Your task to perform on an android device: View the shopping cart on bestbuy. Search for "logitech g903" on bestbuy, select the first entry, add it to the cart, then select checkout. Image 0: 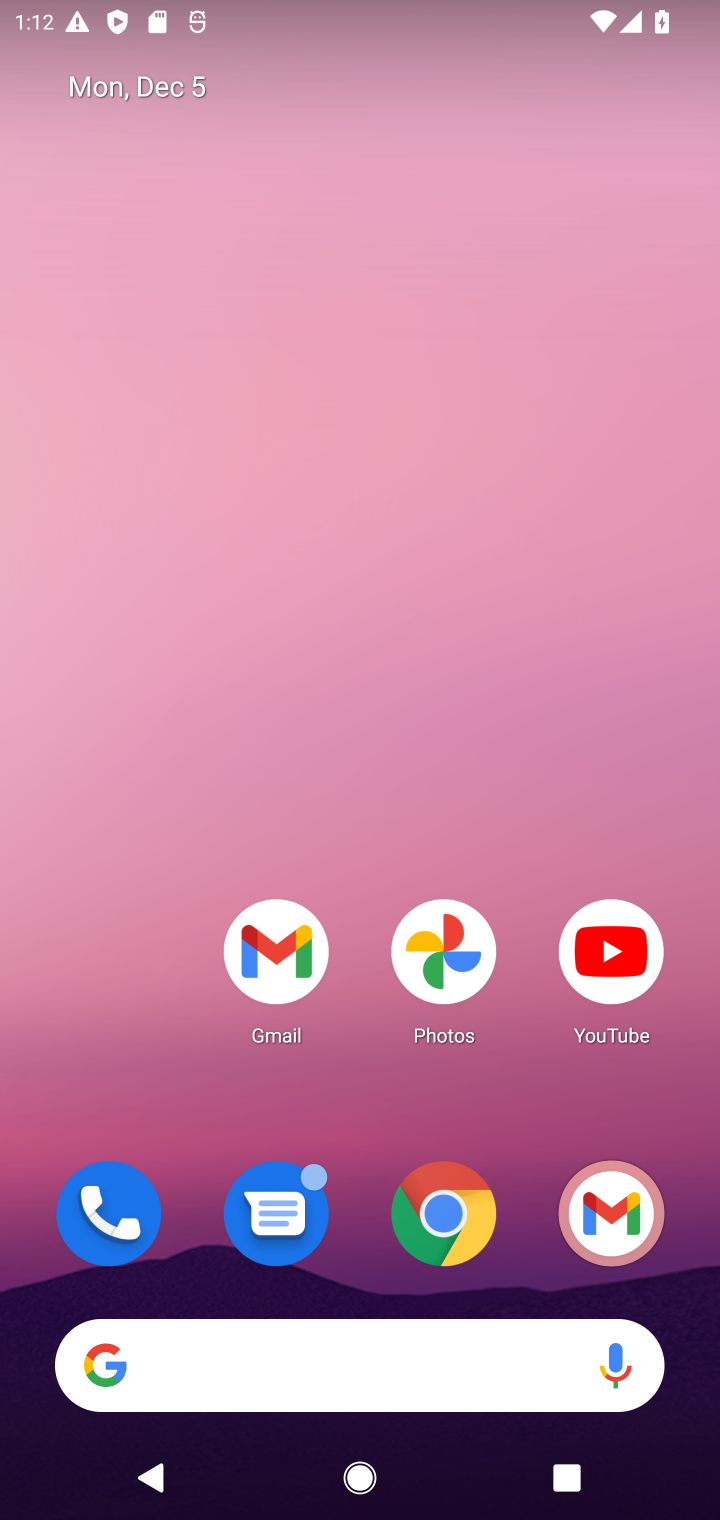
Step 0: click (461, 1221)
Your task to perform on an android device: View the shopping cart on bestbuy. Search for "logitech g903" on bestbuy, select the first entry, add it to the cart, then select checkout. Image 1: 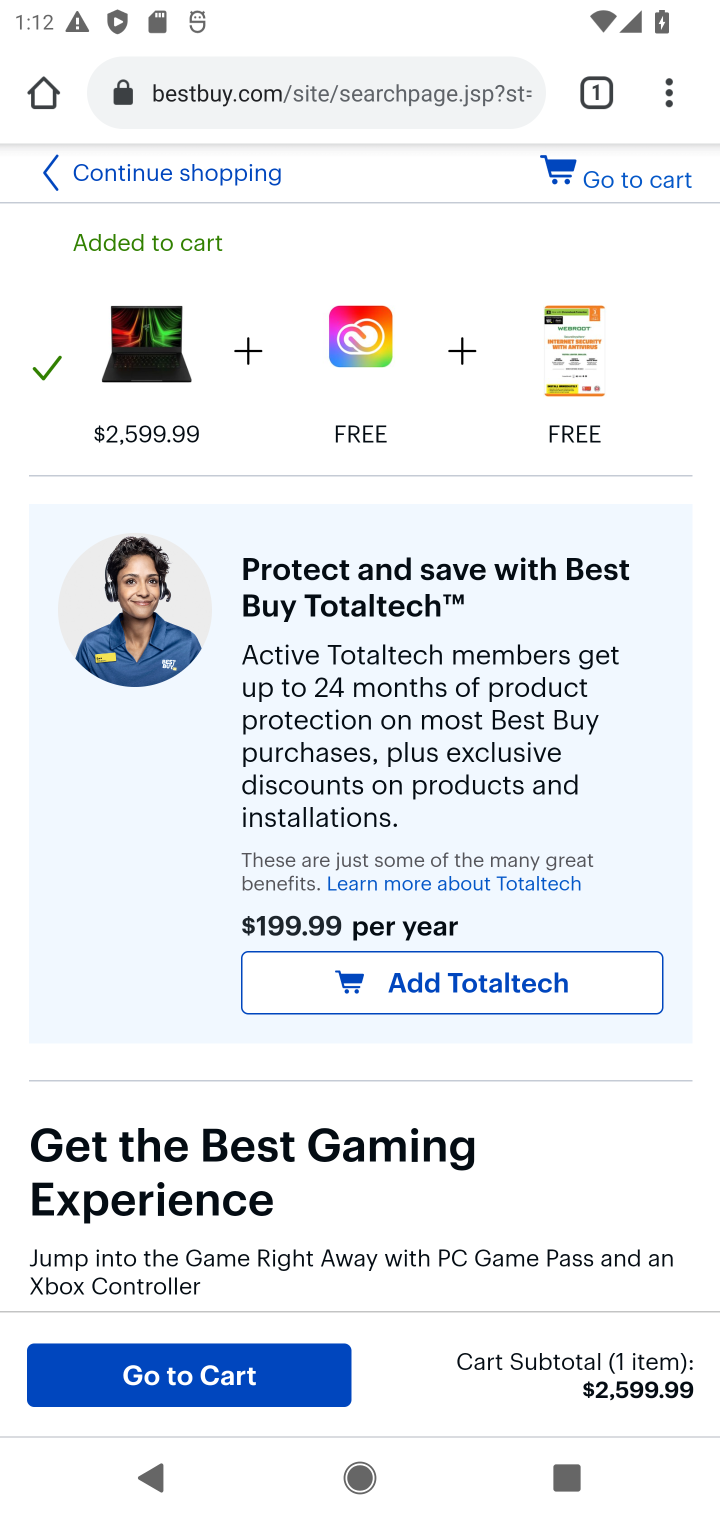
Step 1: click (630, 180)
Your task to perform on an android device: View the shopping cart on bestbuy. Search for "logitech g903" on bestbuy, select the first entry, add it to the cart, then select checkout. Image 2: 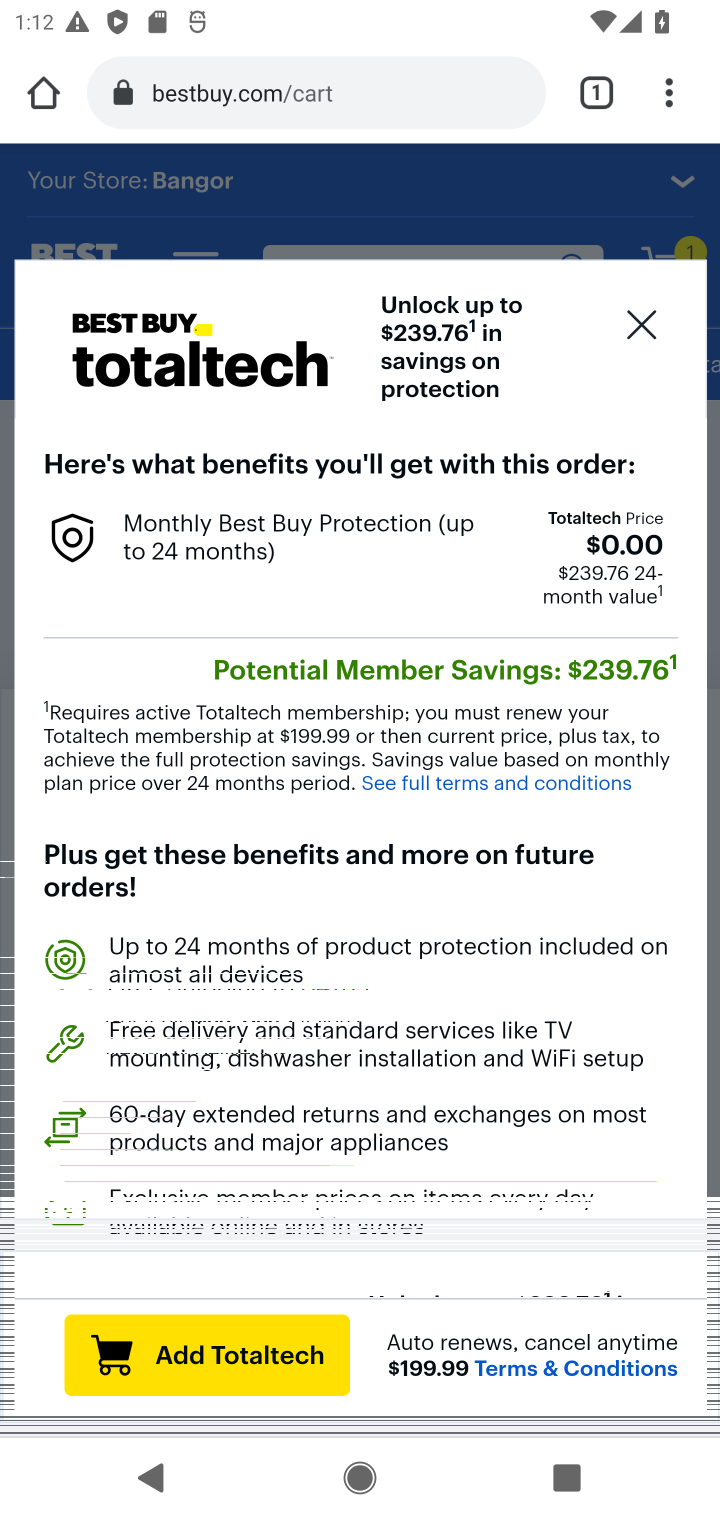
Step 2: click (642, 328)
Your task to perform on an android device: View the shopping cart on bestbuy. Search for "logitech g903" on bestbuy, select the first entry, add it to the cart, then select checkout. Image 3: 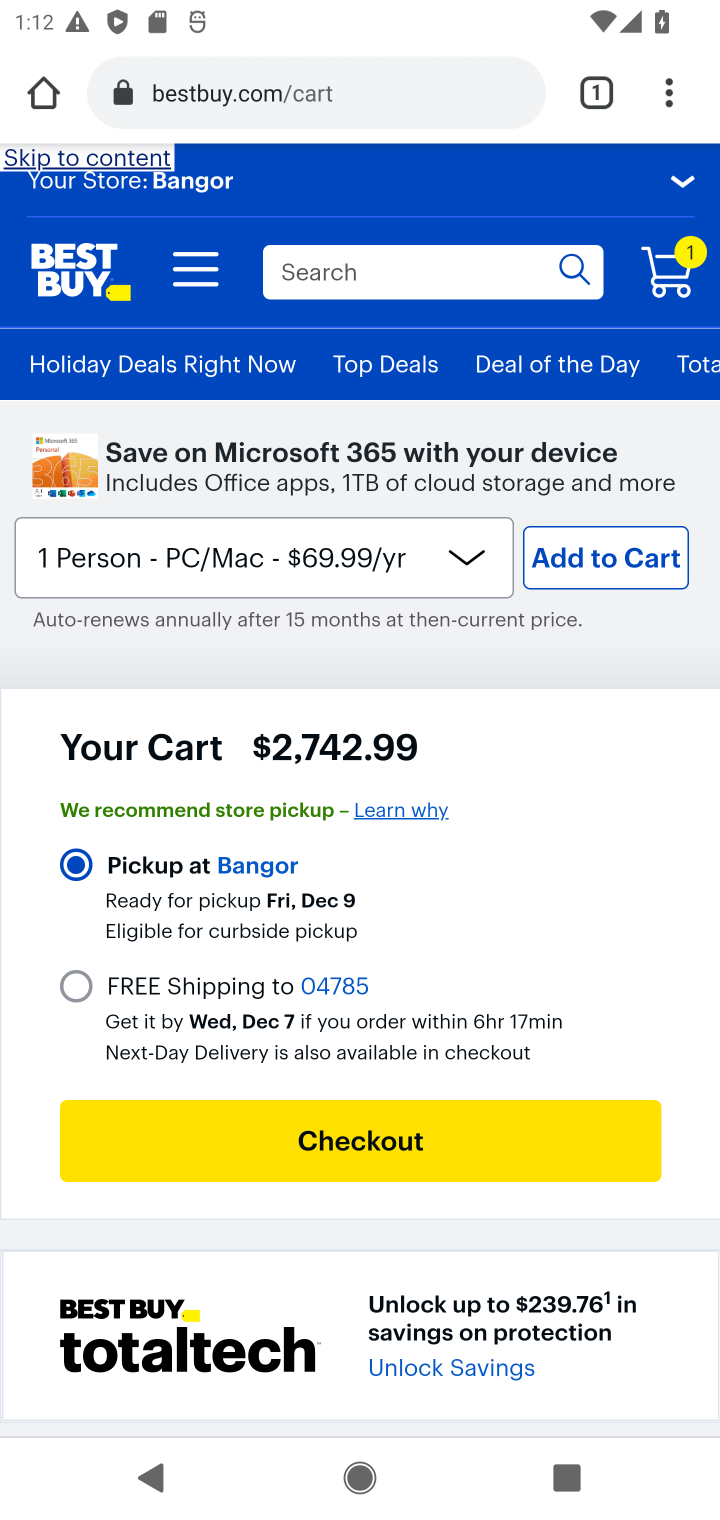
Step 3: drag from (576, 856) to (574, 334)
Your task to perform on an android device: View the shopping cart on bestbuy. Search for "logitech g903" on bestbuy, select the first entry, add it to the cart, then select checkout. Image 4: 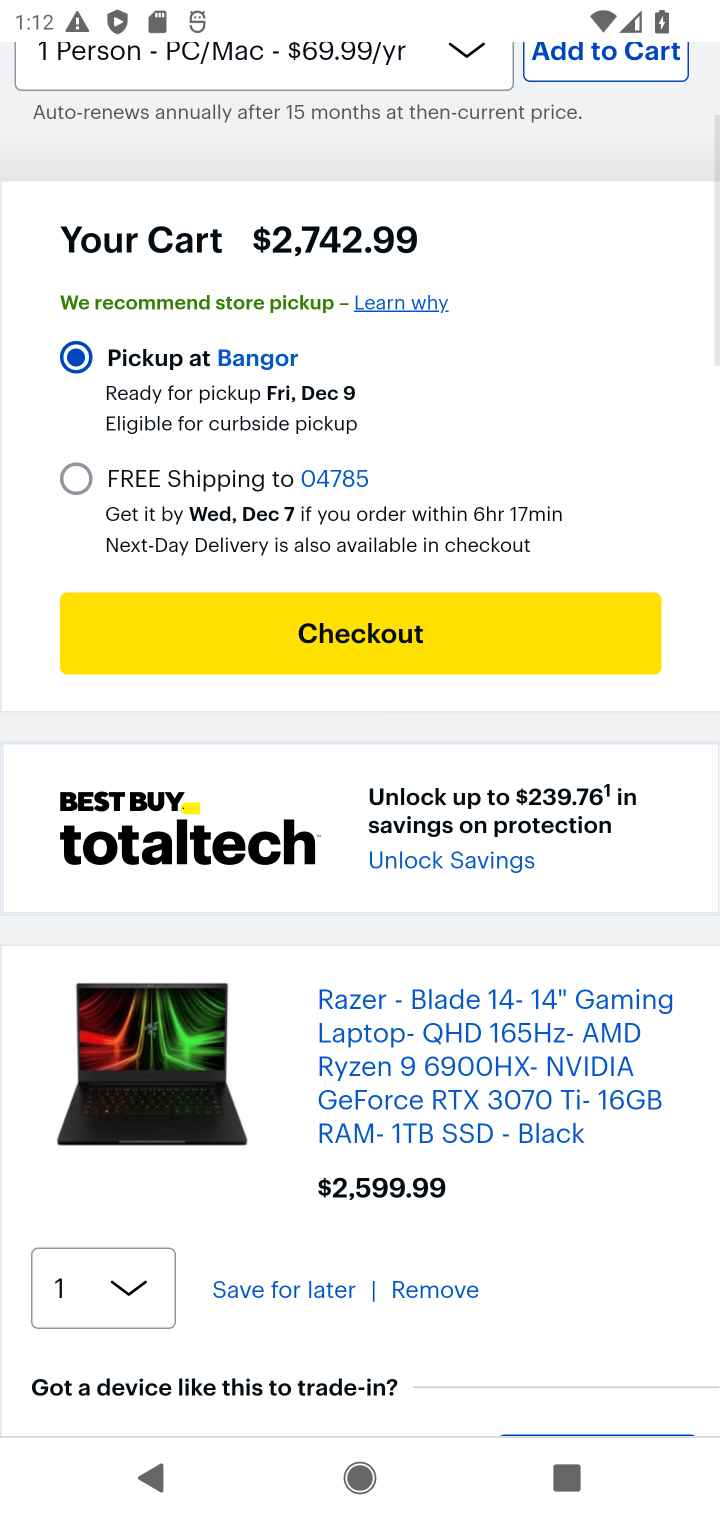
Step 4: drag from (515, 386) to (526, 749)
Your task to perform on an android device: View the shopping cart on bestbuy. Search for "logitech g903" on bestbuy, select the first entry, add it to the cart, then select checkout. Image 5: 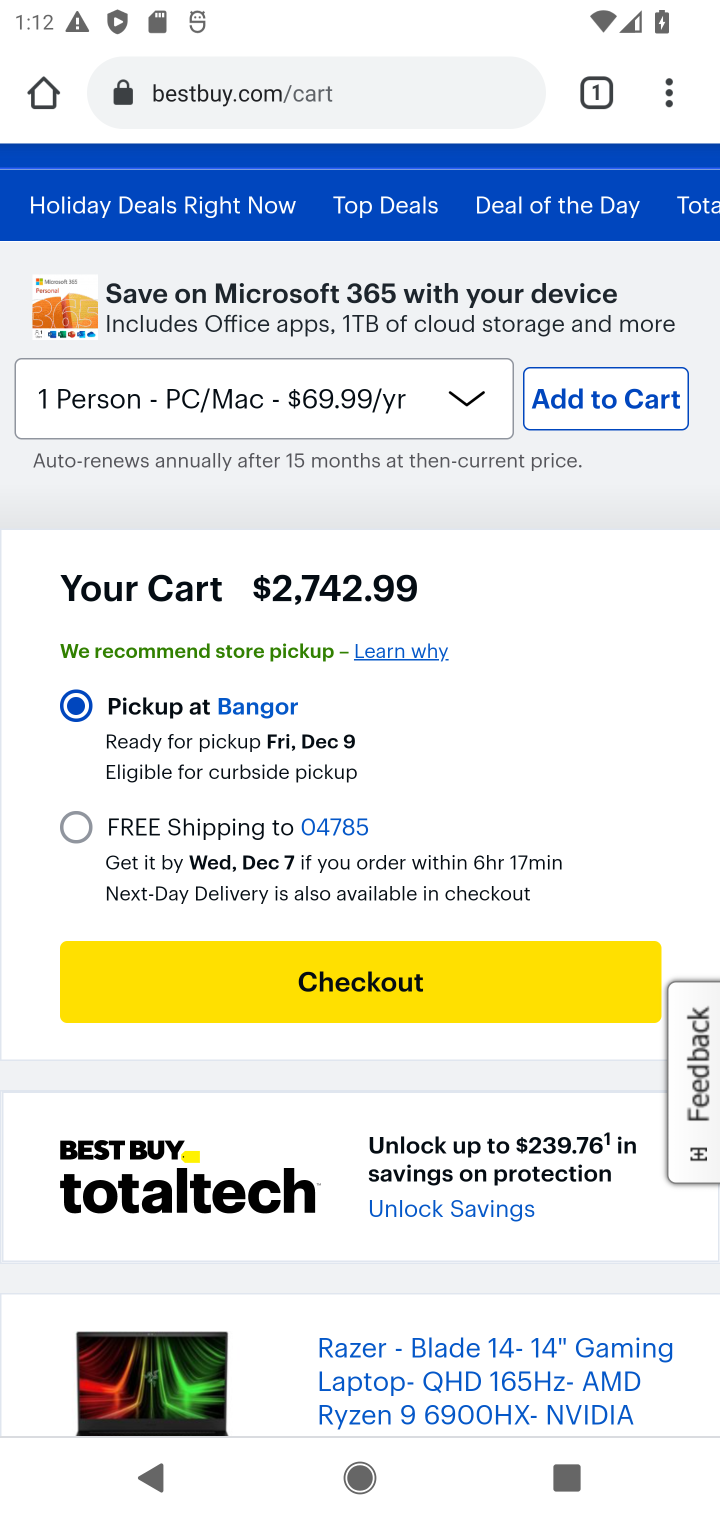
Step 5: drag from (375, 205) to (370, 597)
Your task to perform on an android device: View the shopping cart on bestbuy. Search for "logitech g903" on bestbuy, select the first entry, add it to the cart, then select checkout. Image 6: 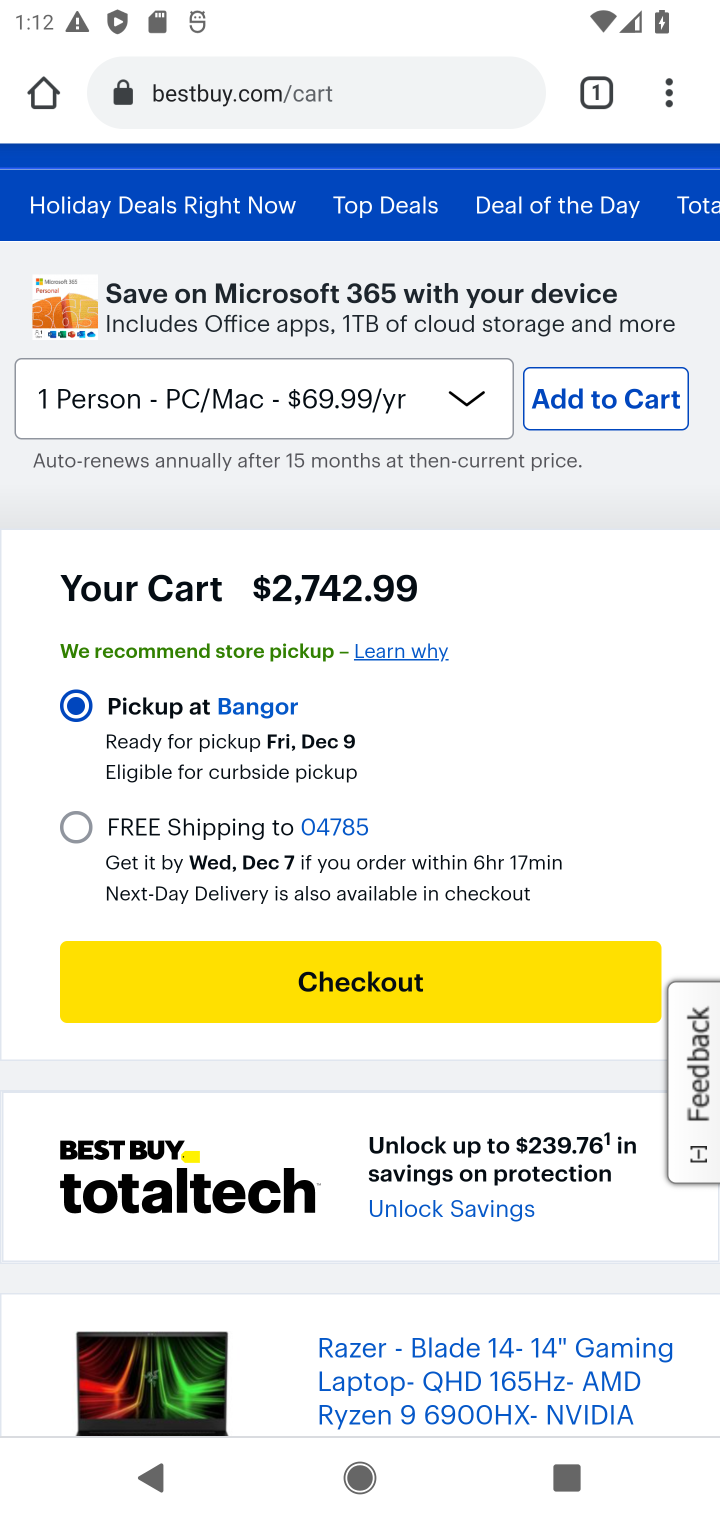
Step 6: drag from (307, 214) to (333, 475)
Your task to perform on an android device: View the shopping cart on bestbuy. Search for "logitech g903" on bestbuy, select the first entry, add it to the cart, then select checkout. Image 7: 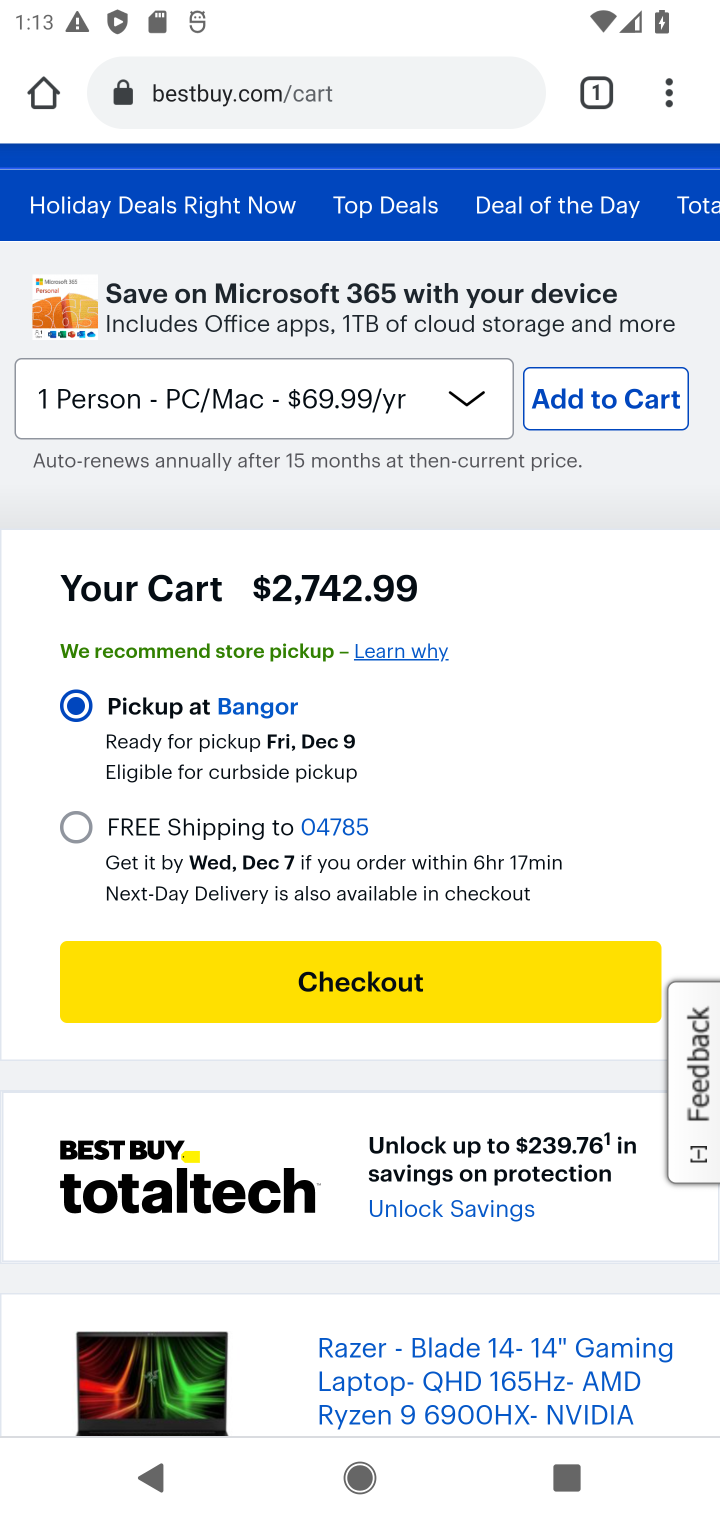
Step 7: drag from (632, 498) to (632, 731)
Your task to perform on an android device: View the shopping cart on bestbuy. Search for "logitech g903" on bestbuy, select the first entry, add it to the cart, then select checkout. Image 8: 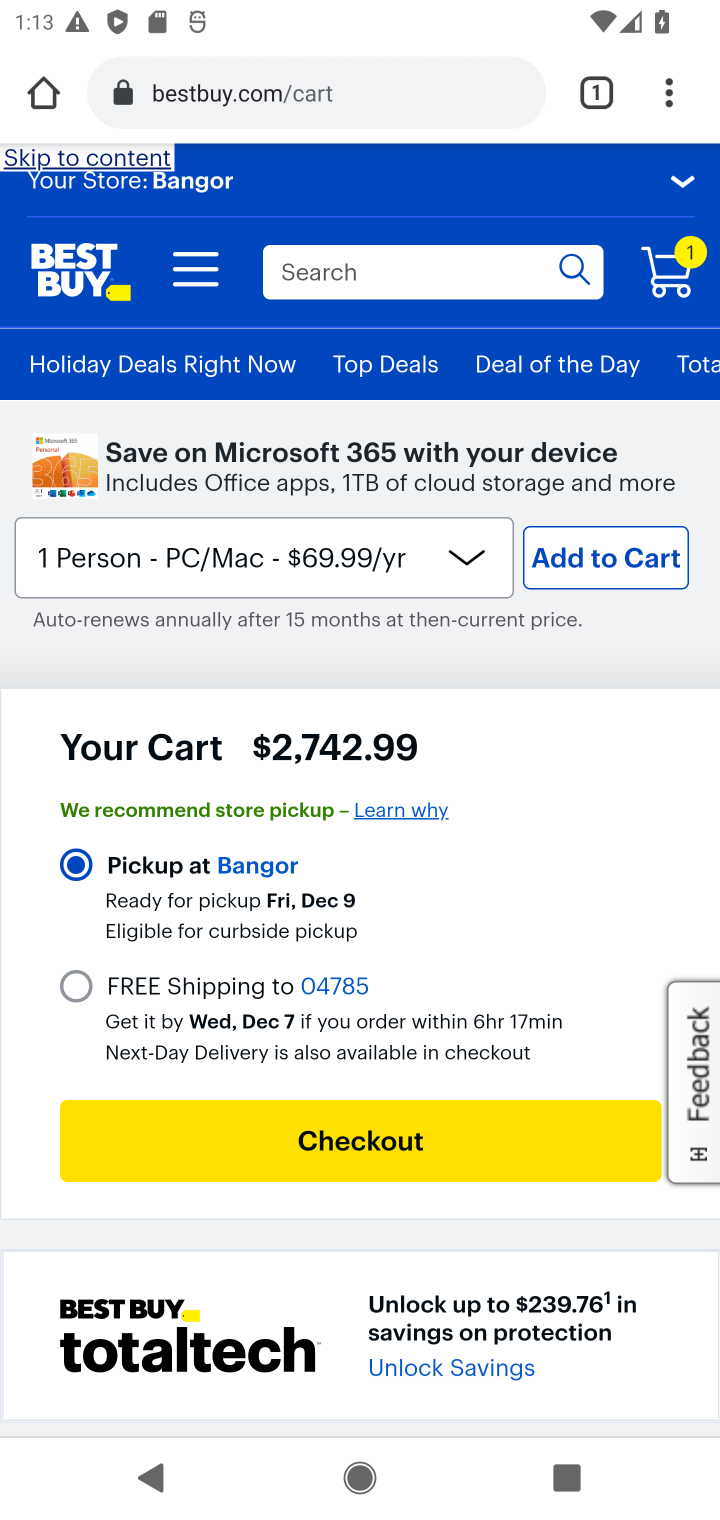
Step 8: click (309, 255)
Your task to perform on an android device: View the shopping cart on bestbuy. Search for "logitech g903" on bestbuy, select the first entry, add it to the cart, then select checkout. Image 9: 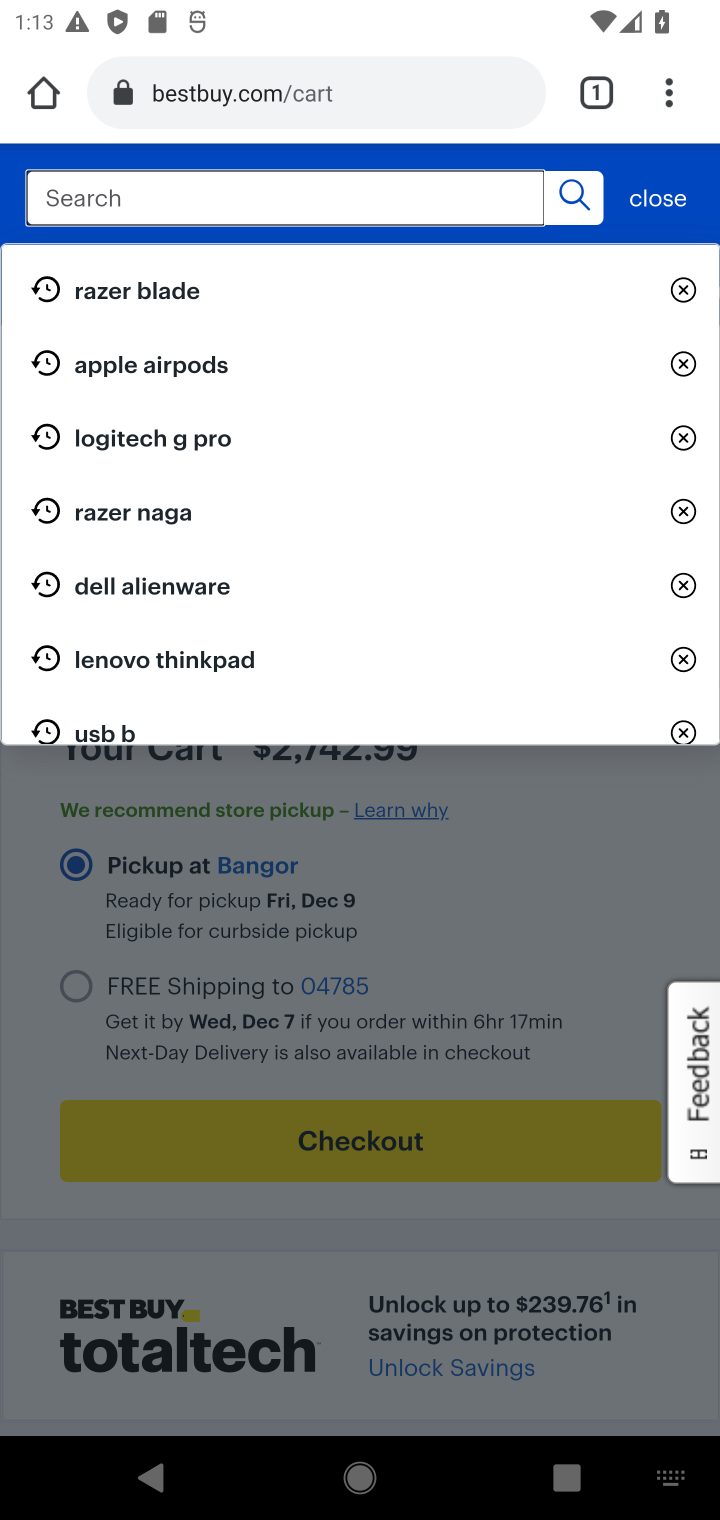
Step 9: type "logitech g903"
Your task to perform on an android device: View the shopping cart on bestbuy. Search for "logitech g903" on bestbuy, select the first entry, add it to the cart, then select checkout. Image 10: 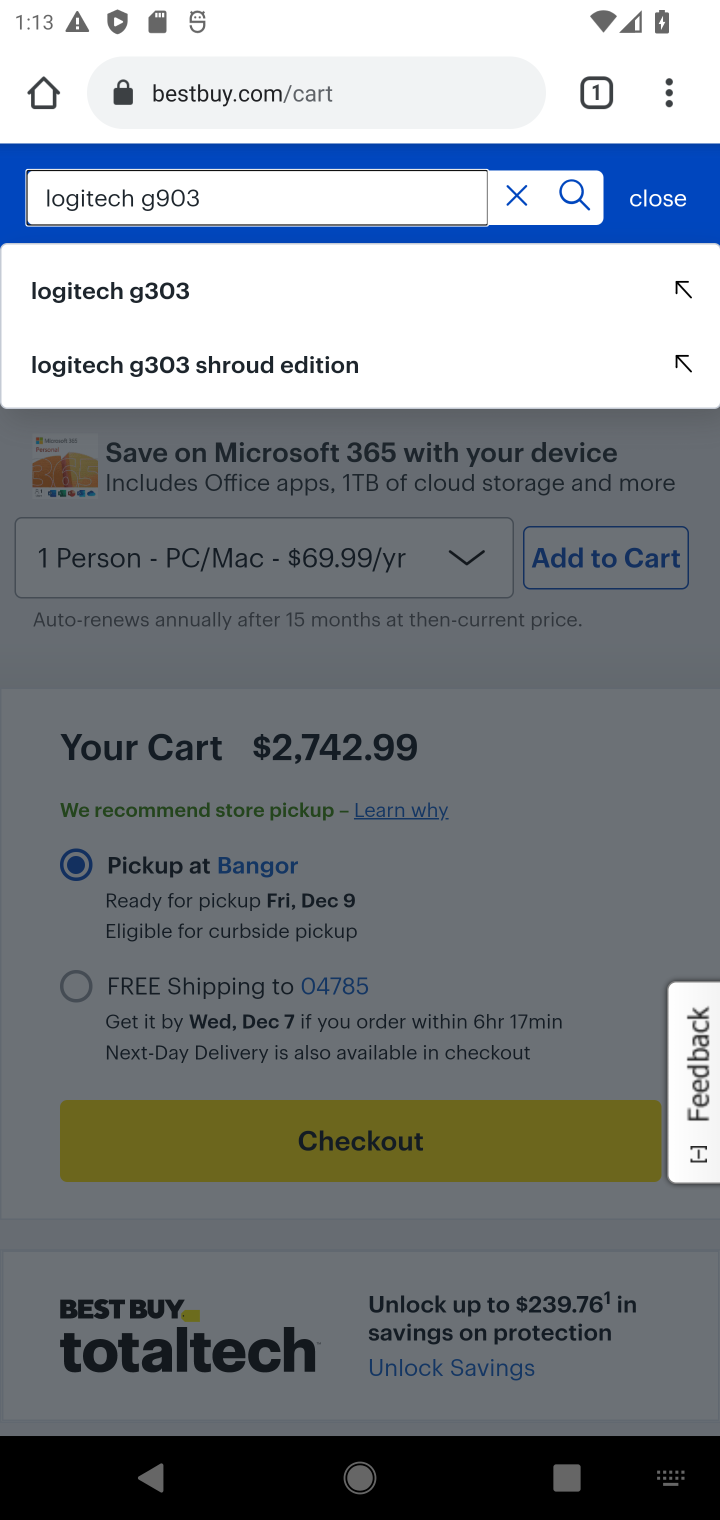
Step 10: click (596, 208)
Your task to perform on an android device: View the shopping cart on bestbuy. Search for "logitech g903" on bestbuy, select the first entry, add it to the cart, then select checkout. Image 11: 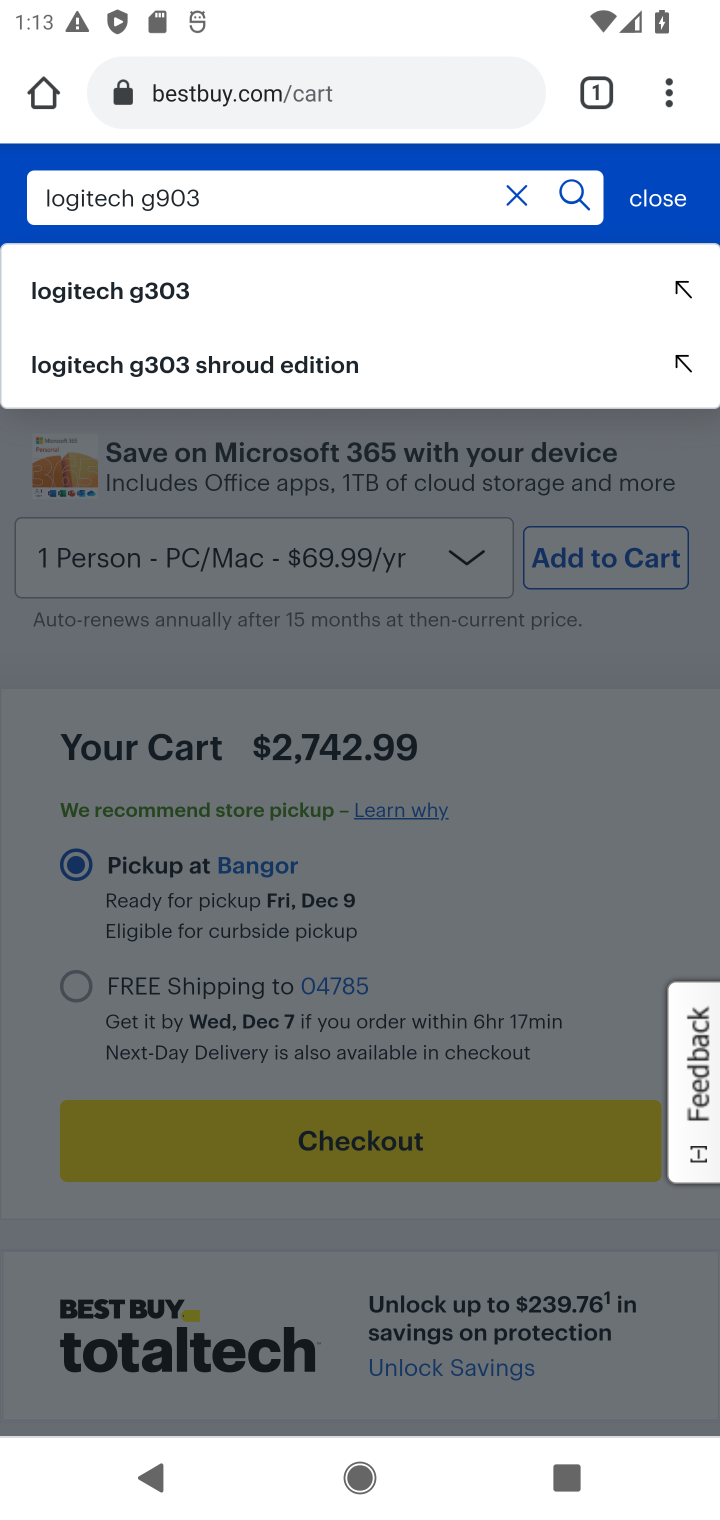
Step 11: click (568, 199)
Your task to perform on an android device: View the shopping cart on bestbuy. Search for "logitech g903" on bestbuy, select the first entry, add it to the cart, then select checkout. Image 12: 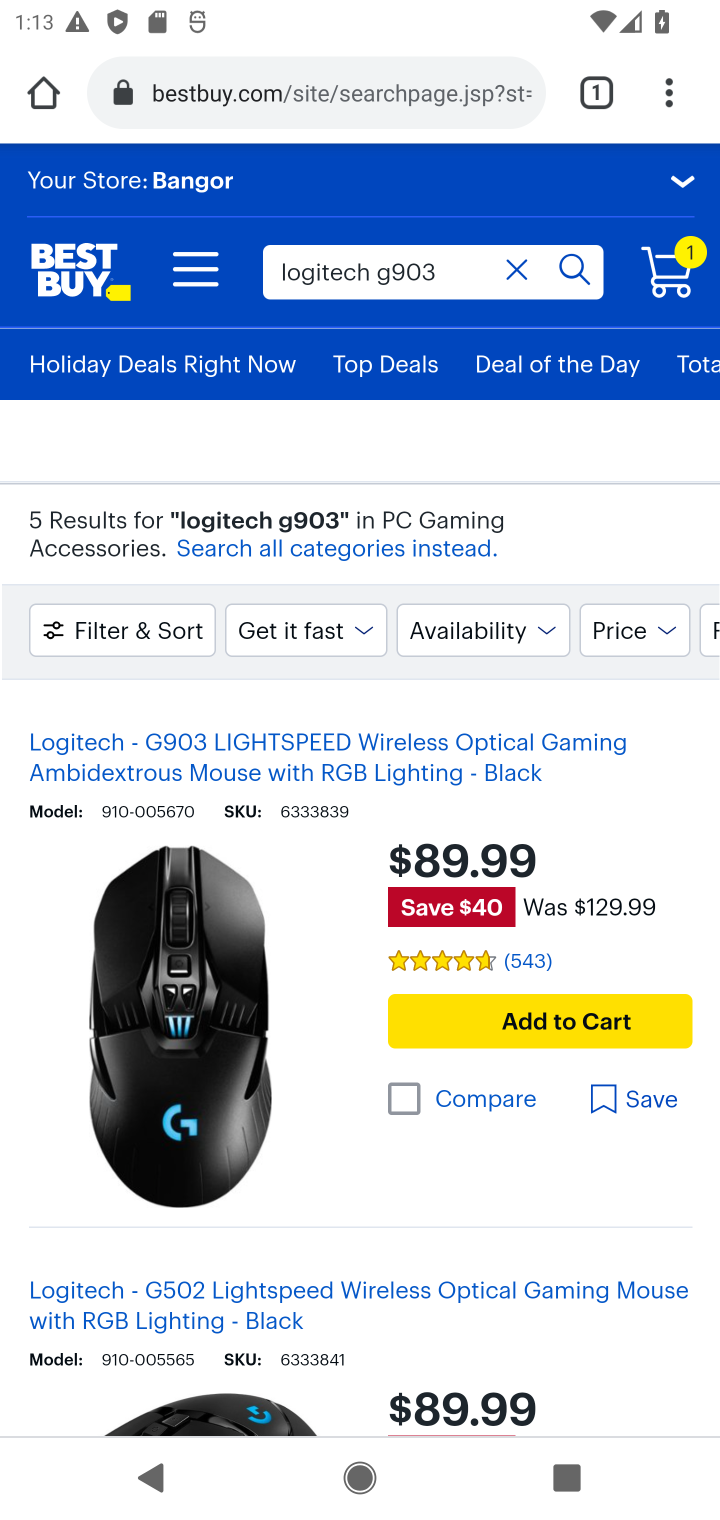
Step 12: drag from (328, 934) to (363, 542)
Your task to perform on an android device: View the shopping cart on bestbuy. Search for "logitech g903" on bestbuy, select the first entry, add it to the cart, then select checkout. Image 13: 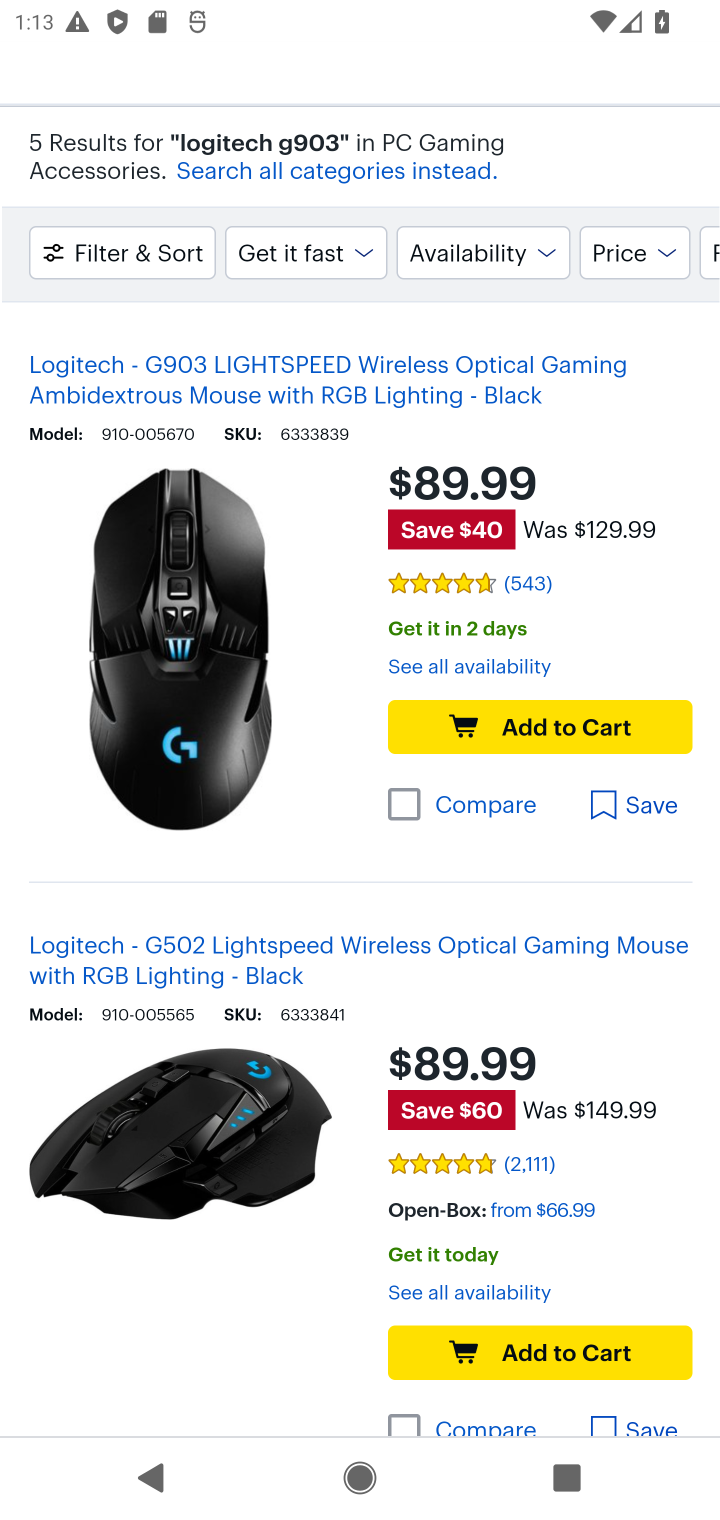
Step 13: click (521, 731)
Your task to perform on an android device: View the shopping cart on bestbuy. Search for "logitech g903" on bestbuy, select the first entry, add it to the cart, then select checkout. Image 14: 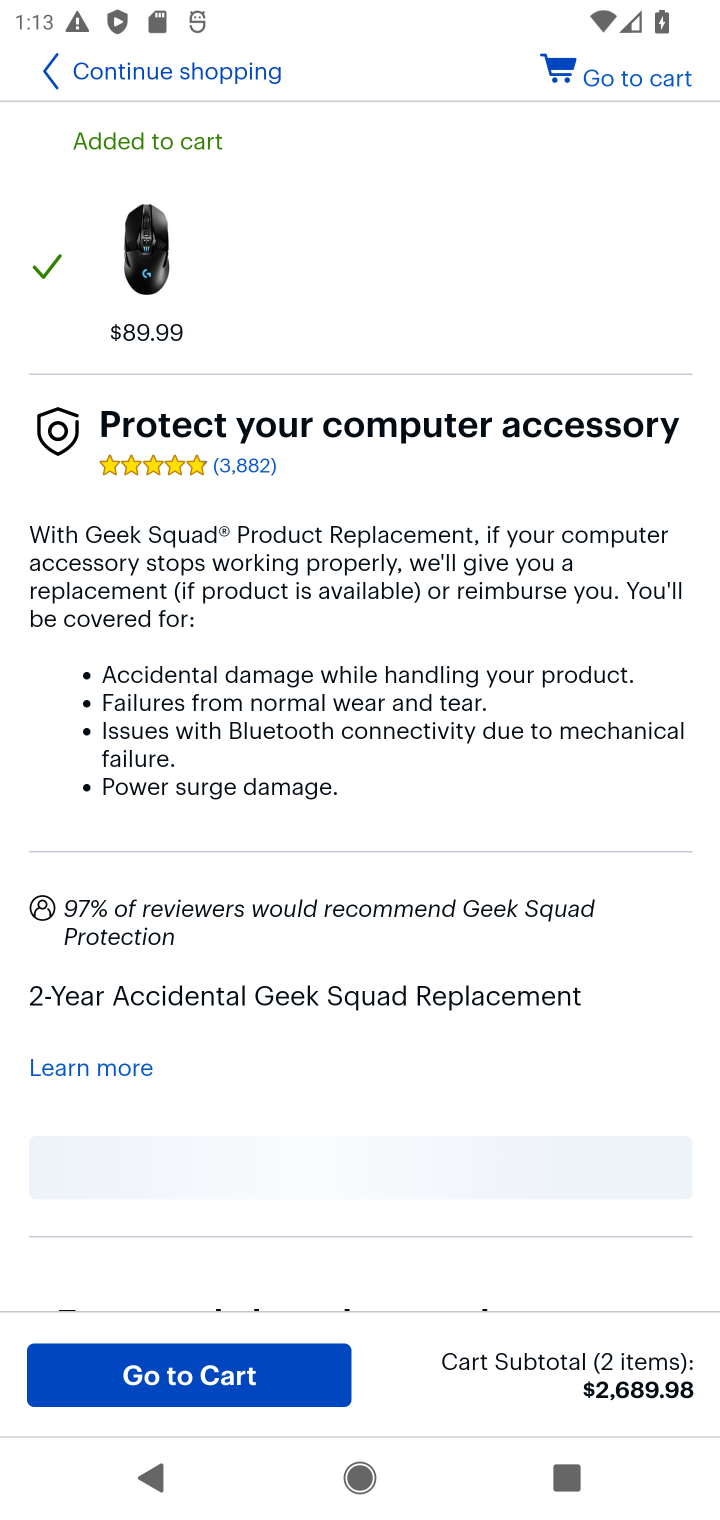
Step 14: click (643, 86)
Your task to perform on an android device: View the shopping cart on bestbuy. Search for "logitech g903" on bestbuy, select the first entry, add it to the cart, then select checkout. Image 15: 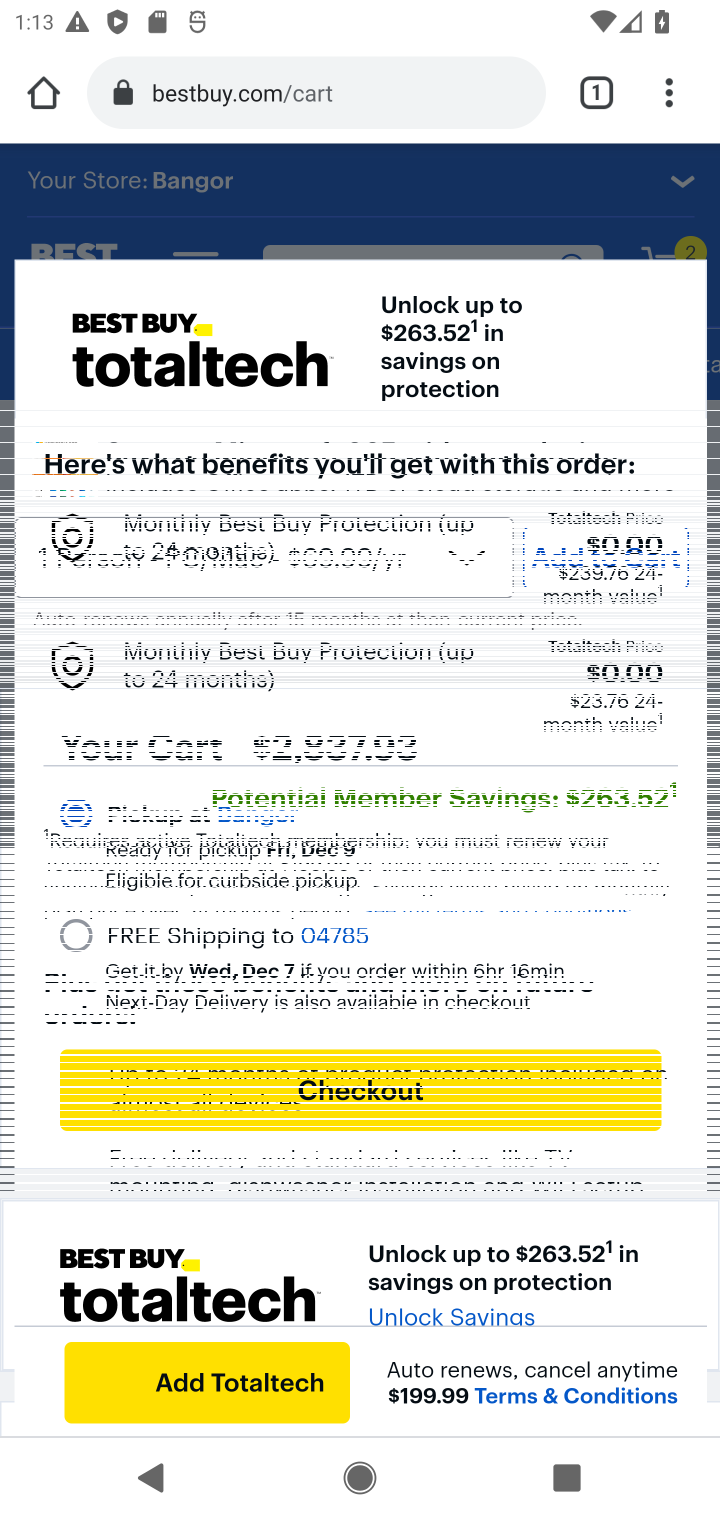
Step 15: click (493, 203)
Your task to perform on an android device: View the shopping cart on bestbuy. Search for "logitech g903" on bestbuy, select the first entry, add it to the cart, then select checkout. Image 16: 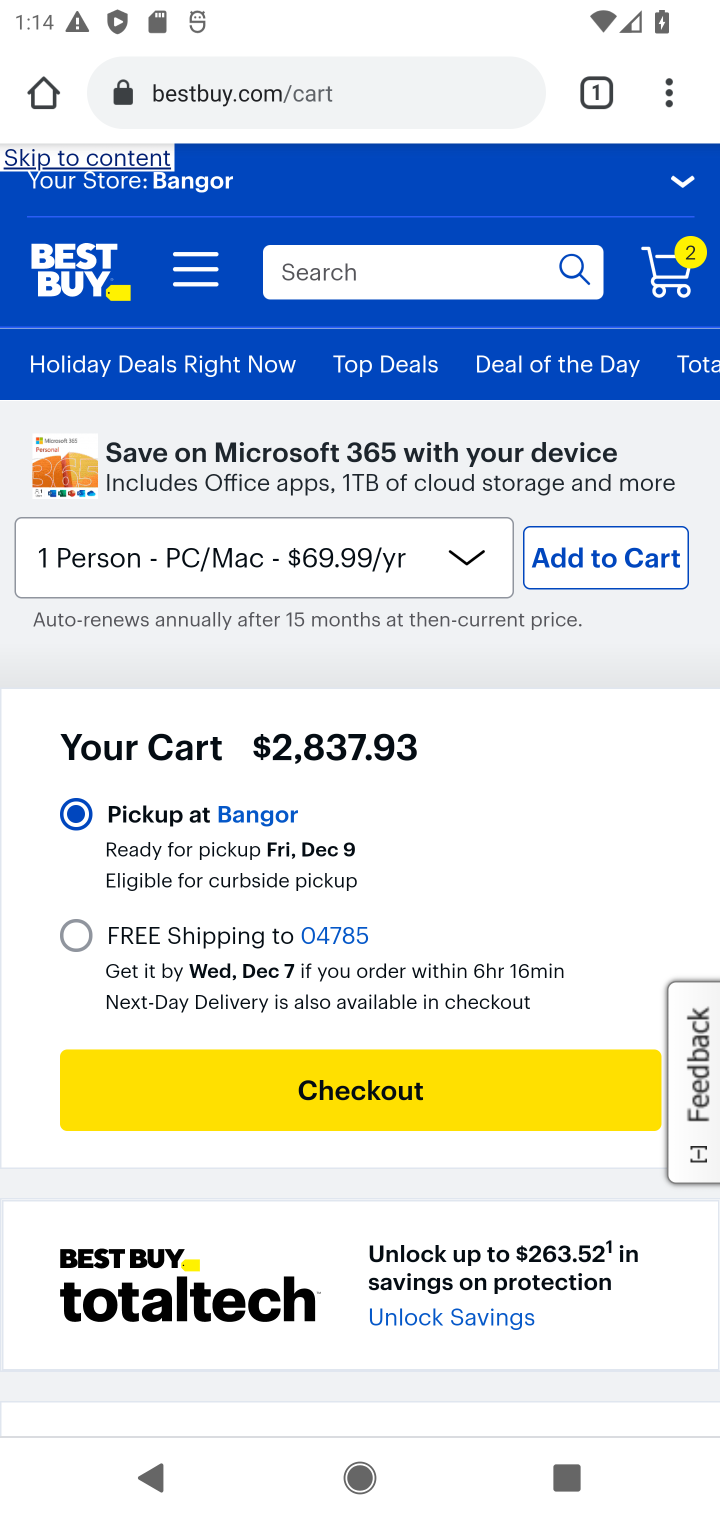
Step 16: click (376, 1105)
Your task to perform on an android device: View the shopping cart on bestbuy. Search for "logitech g903" on bestbuy, select the first entry, add it to the cart, then select checkout. Image 17: 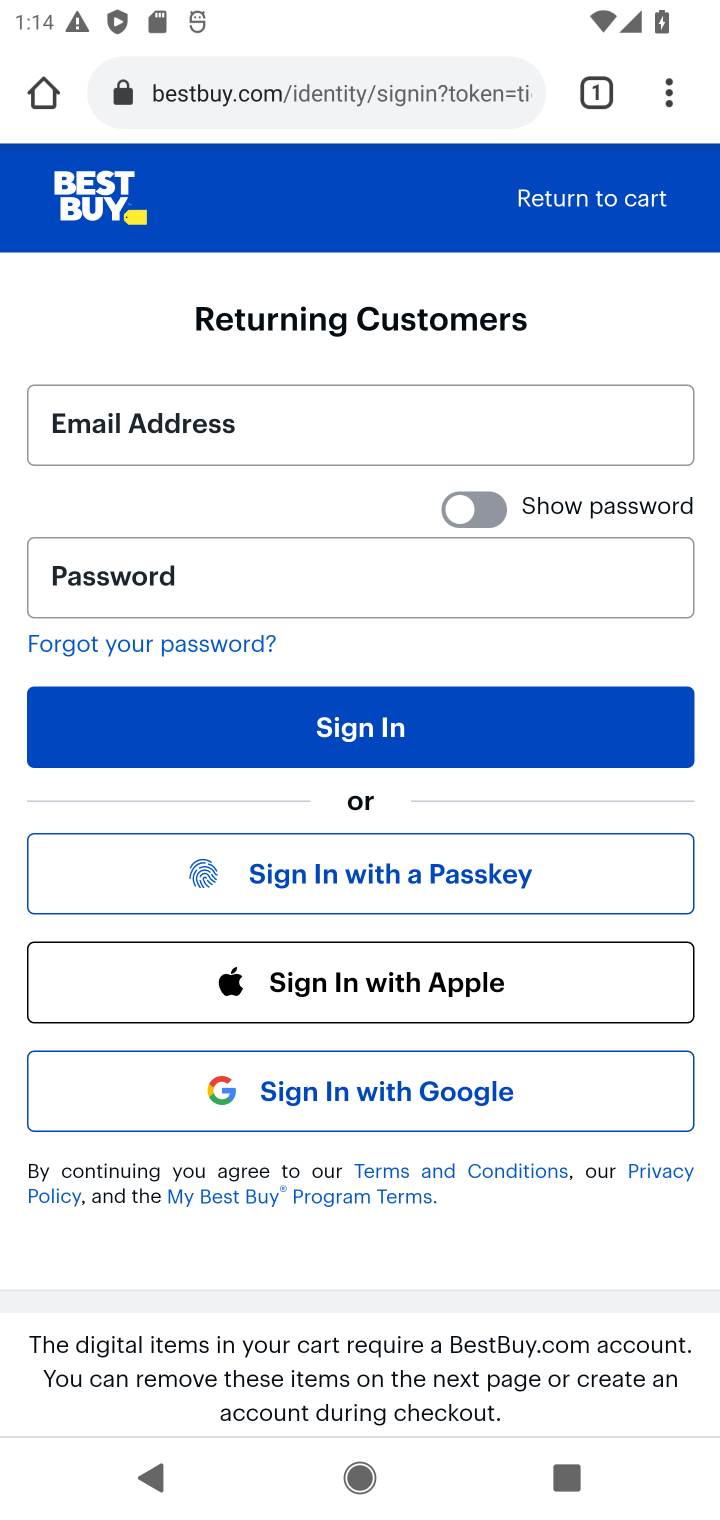
Step 17: task complete